Your task to perform on an android device: Search for Italian restaurants on Maps Image 0: 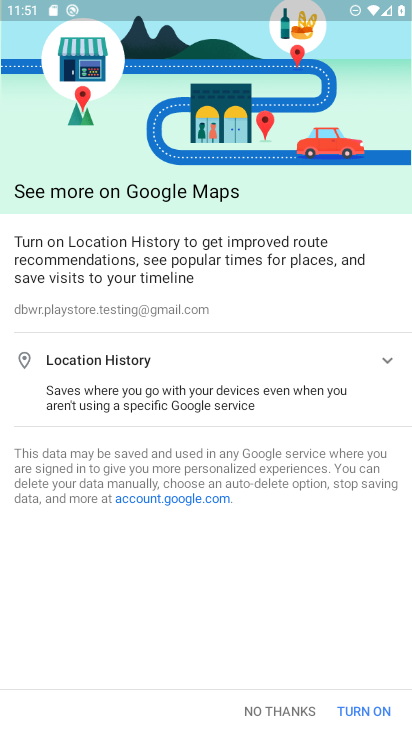
Step 0: click (298, 716)
Your task to perform on an android device: Search for Italian restaurants on Maps Image 1: 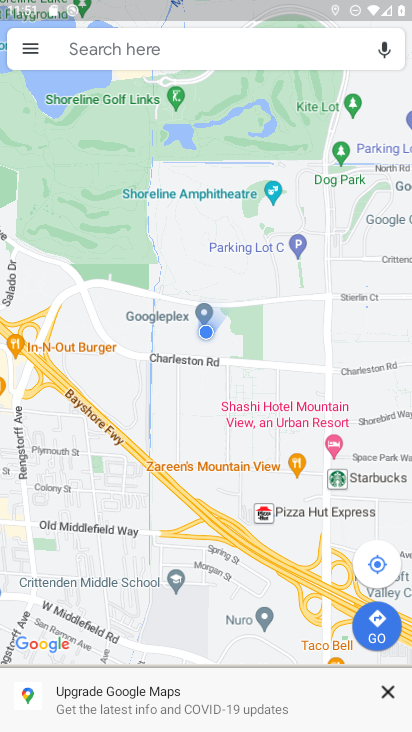
Step 1: click (195, 52)
Your task to perform on an android device: Search for Italian restaurants on Maps Image 2: 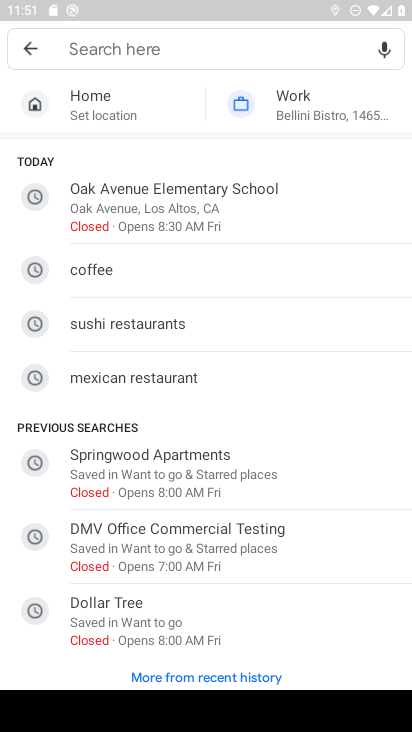
Step 2: type "Italian restaurants"
Your task to perform on an android device: Search for Italian restaurants on Maps Image 3: 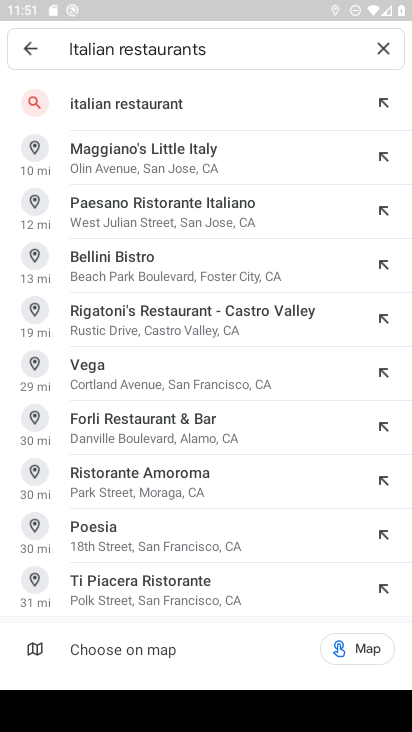
Step 3: click (177, 94)
Your task to perform on an android device: Search for Italian restaurants on Maps Image 4: 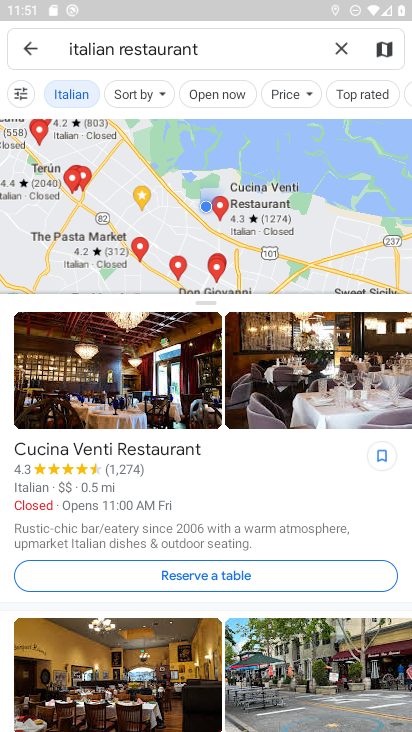
Step 4: task complete